Your task to perform on an android device: turn off smart reply in the gmail app Image 0: 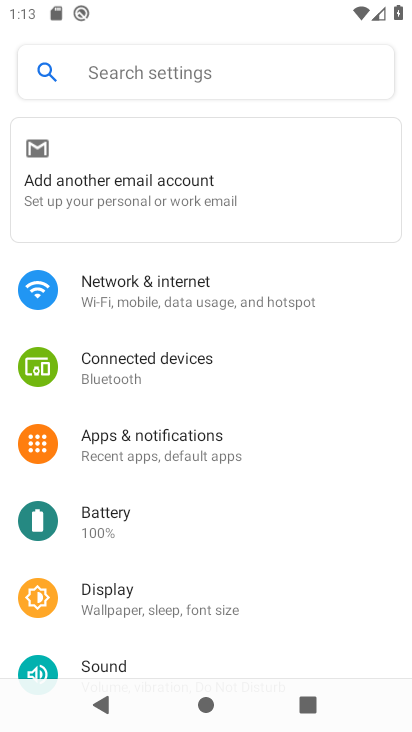
Step 0: press home button
Your task to perform on an android device: turn off smart reply in the gmail app Image 1: 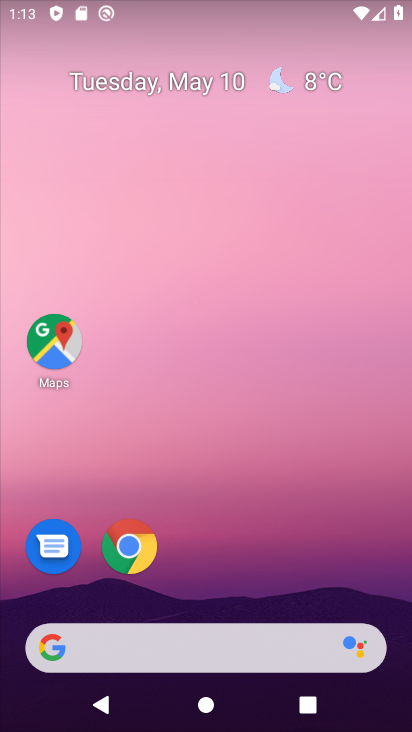
Step 1: drag from (343, 579) to (279, 65)
Your task to perform on an android device: turn off smart reply in the gmail app Image 2: 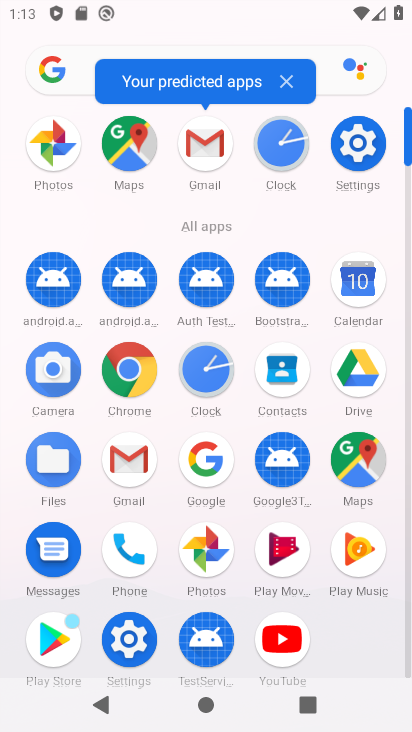
Step 2: click (409, 663)
Your task to perform on an android device: turn off smart reply in the gmail app Image 3: 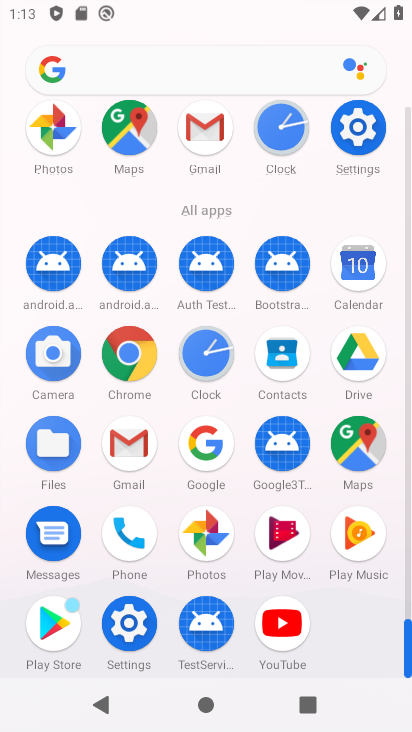
Step 3: click (128, 448)
Your task to perform on an android device: turn off smart reply in the gmail app Image 4: 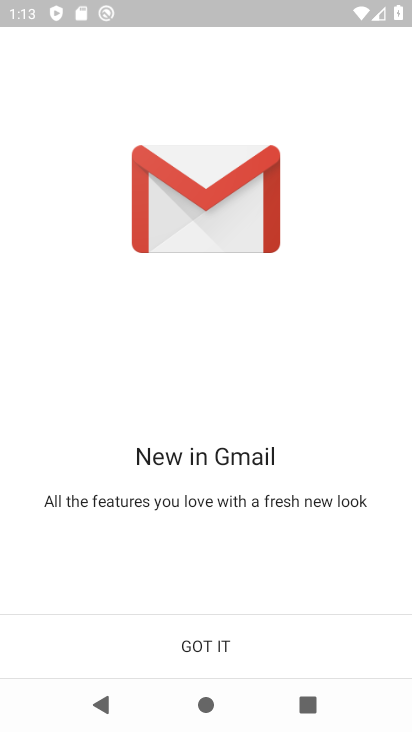
Step 4: click (200, 645)
Your task to perform on an android device: turn off smart reply in the gmail app Image 5: 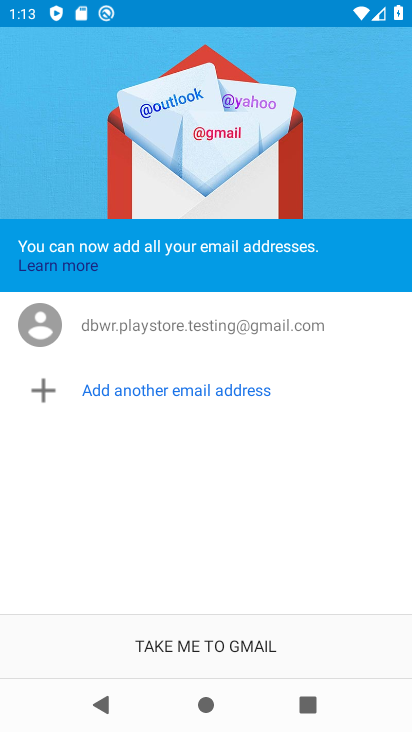
Step 5: click (200, 642)
Your task to perform on an android device: turn off smart reply in the gmail app Image 6: 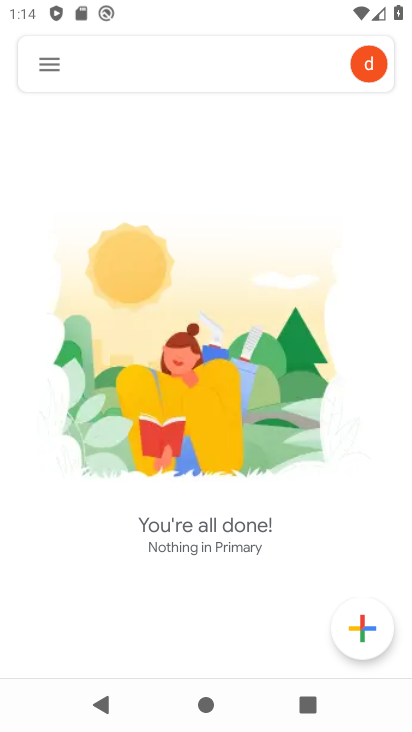
Step 6: click (53, 76)
Your task to perform on an android device: turn off smart reply in the gmail app Image 7: 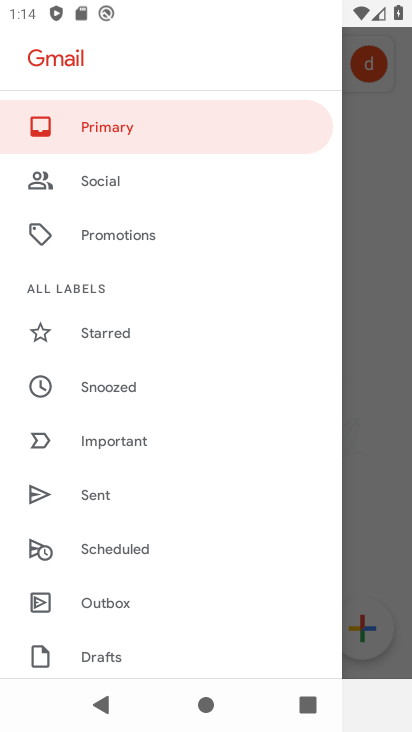
Step 7: drag from (177, 593) to (209, 89)
Your task to perform on an android device: turn off smart reply in the gmail app Image 8: 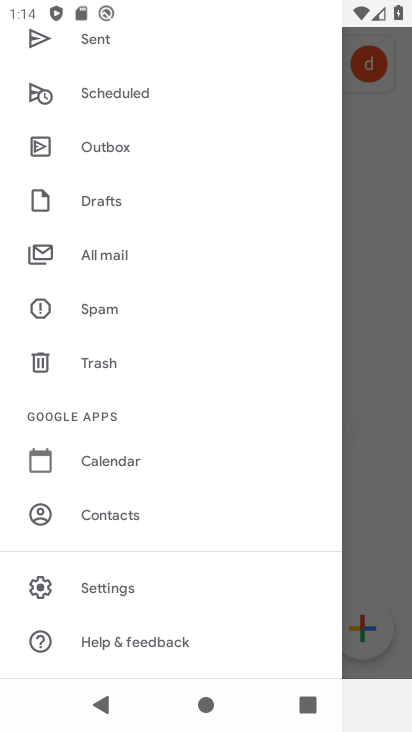
Step 8: click (92, 589)
Your task to perform on an android device: turn off smart reply in the gmail app Image 9: 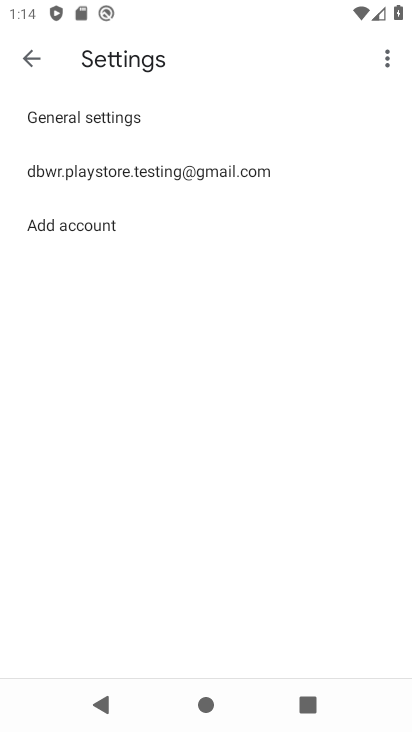
Step 9: click (113, 169)
Your task to perform on an android device: turn off smart reply in the gmail app Image 10: 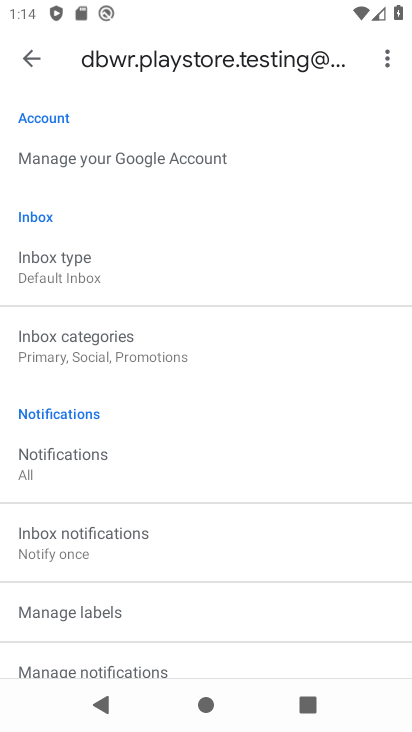
Step 10: drag from (199, 580) to (215, 163)
Your task to perform on an android device: turn off smart reply in the gmail app Image 11: 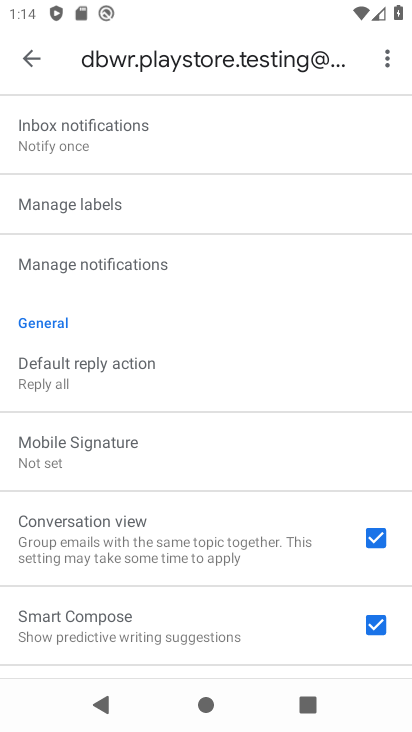
Step 11: drag from (222, 619) to (229, 243)
Your task to perform on an android device: turn off smart reply in the gmail app Image 12: 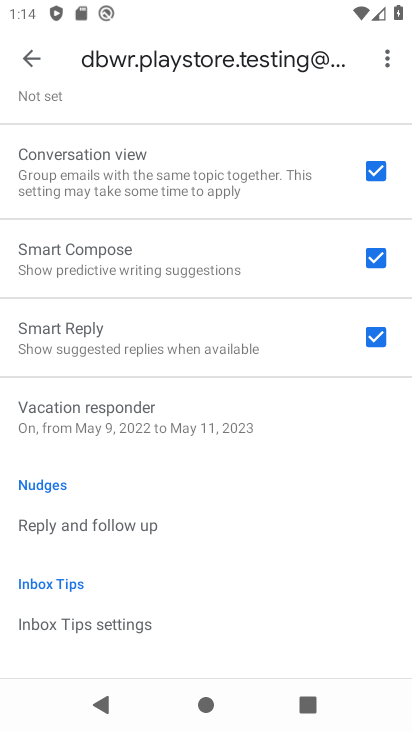
Step 12: click (382, 339)
Your task to perform on an android device: turn off smart reply in the gmail app Image 13: 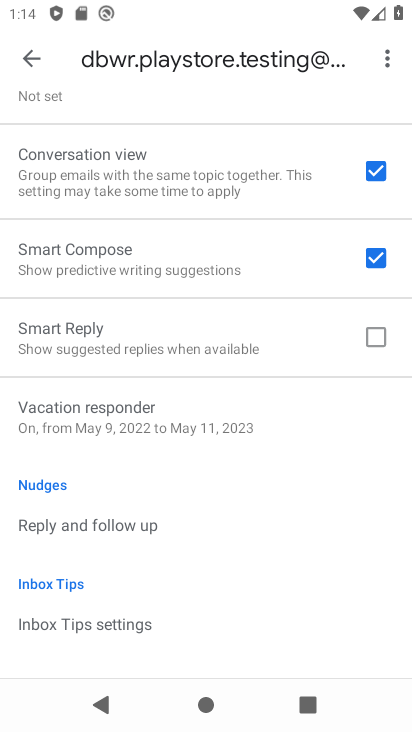
Step 13: task complete